Your task to perform on an android device: Open settings on Google Maps Image 0: 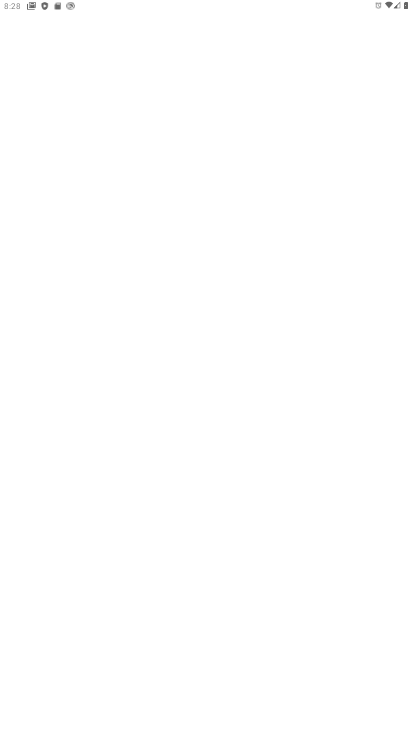
Step 0: click (204, 683)
Your task to perform on an android device: Open settings on Google Maps Image 1: 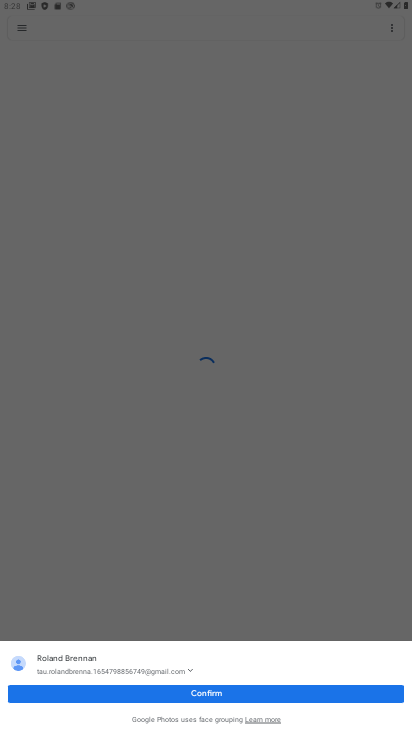
Step 1: press home button
Your task to perform on an android device: Open settings on Google Maps Image 2: 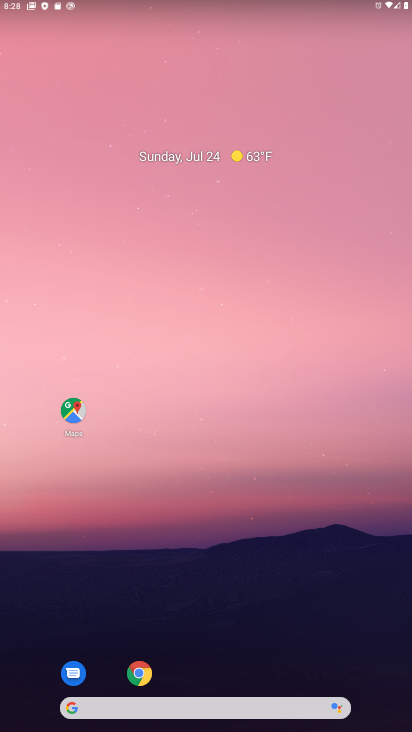
Step 2: drag from (210, 686) to (190, 114)
Your task to perform on an android device: Open settings on Google Maps Image 3: 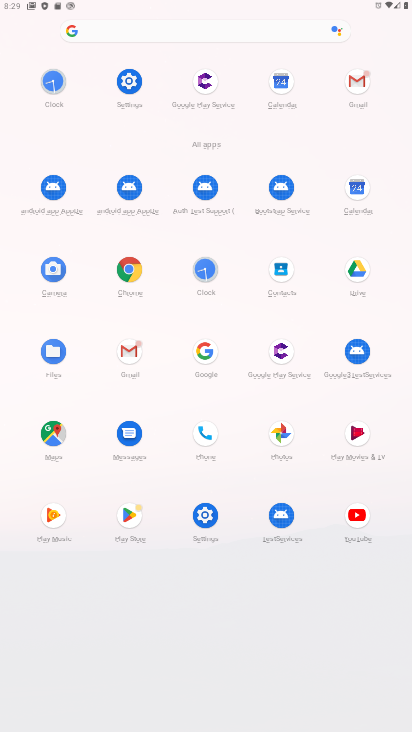
Step 3: click (40, 432)
Your task to perform on an android device: Open settings on Google Maps Image 4: 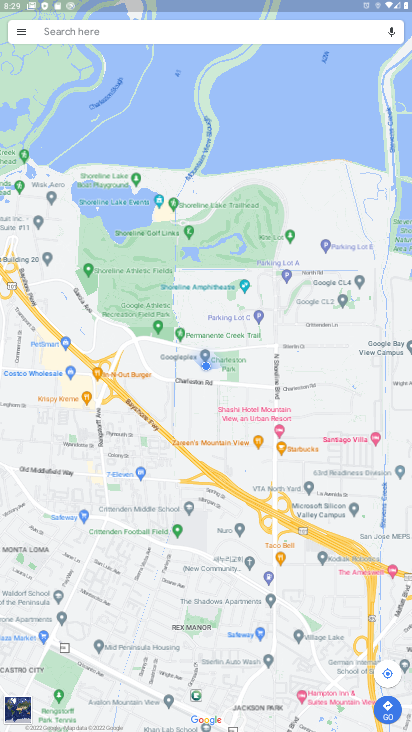
Step 4: click (17, 36)
Your task to perform on an android device: Open settings on Google Maps Image 5: 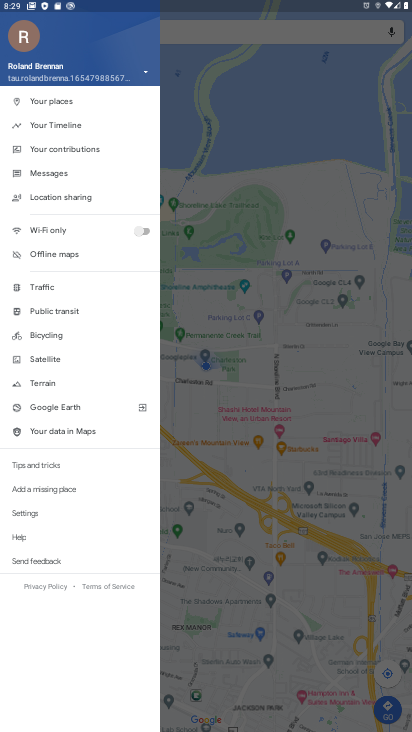
Step 5: click (35, 508)
Your task to perform on an android device: Open settings on Google Maps Image 6: 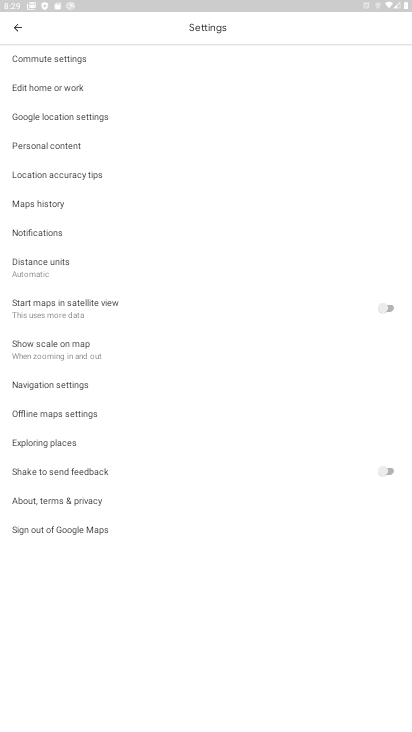
Step 6: task complete